Your task to perform on an android device: toggle pop-ups in chrome Image 0: 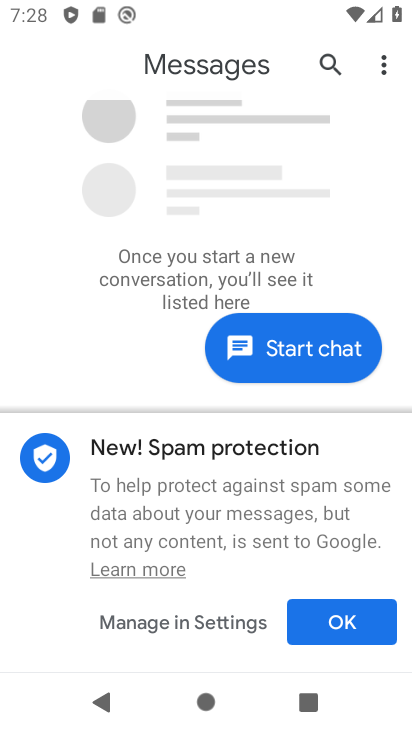
Step 0: press home button
Your task to perform on an android device: toggle pop-ups in chrome Image 1: 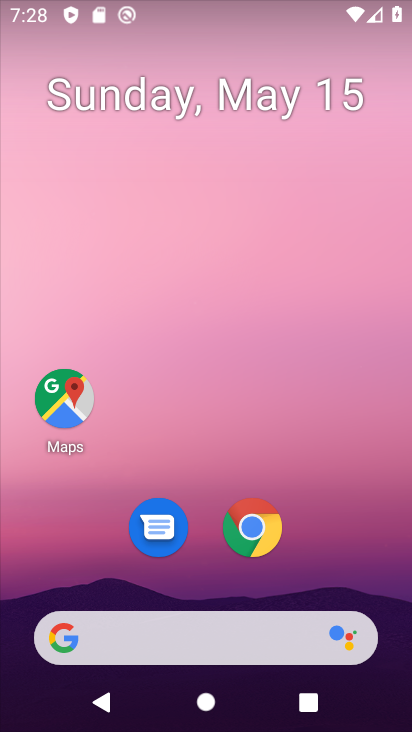
Step 1: drag from (223, 634) to (326, 120)
Your task to perform on an android device: toggle pop-ups in chrome Image 2: 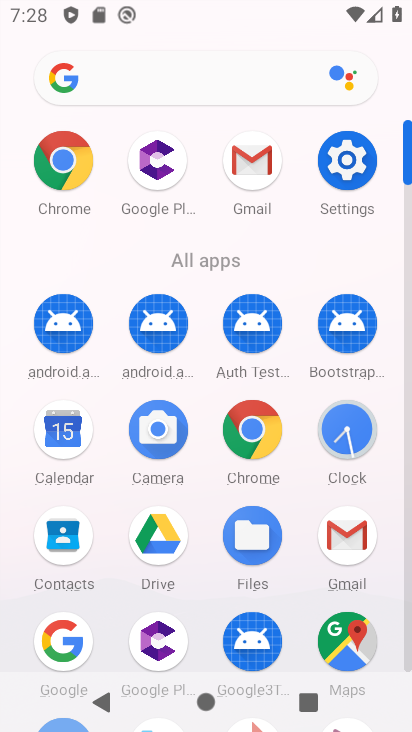
Step 2: click (59, 173)
Your task to perform on an android device: toggle pop-ups in chrome Image 3: 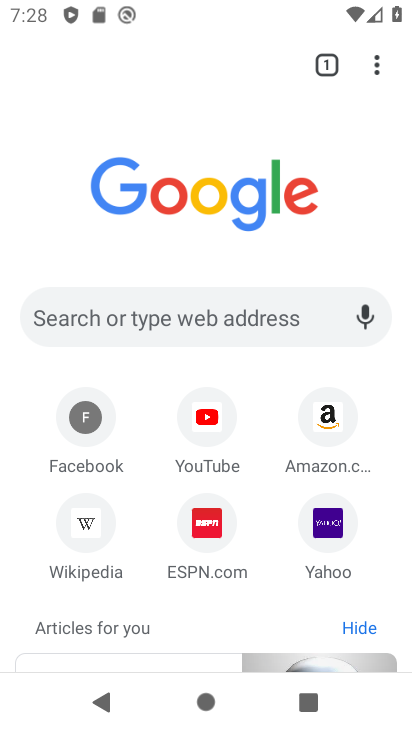
Step 3: drag from (375, 72) to (227, 527)
Your task to perform on an android device: toggle pop-ups in chrome Image 4: 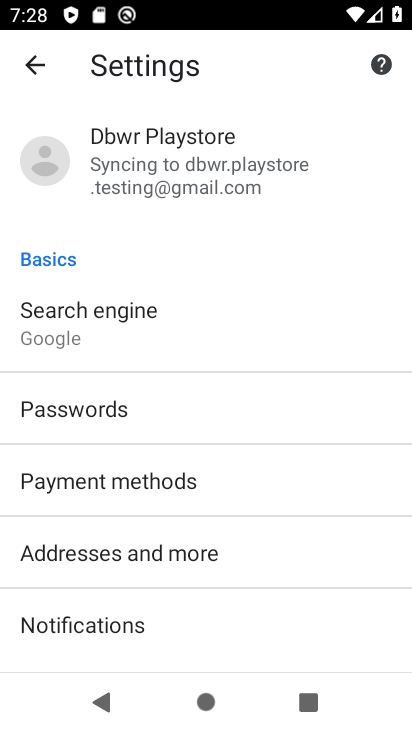
Step 4: drag from (182, 595) to (310, 221)
Your task to perform on an android device: toggle pop-ups in chrome Image 5: 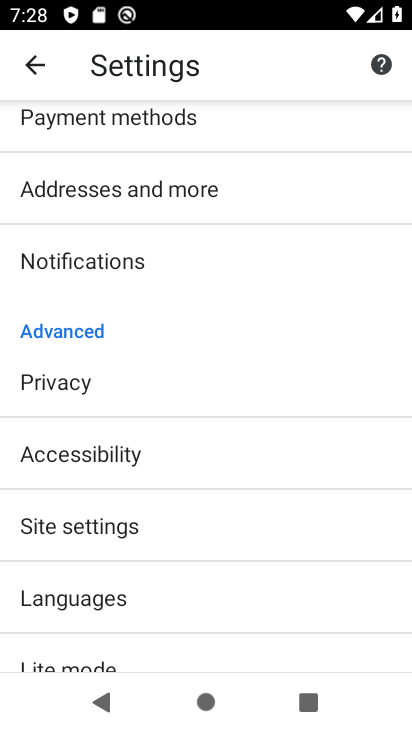
Step 5: click (123, 520)
Your task to perform on an android device: toggle pop-ups in chrome Image 6: 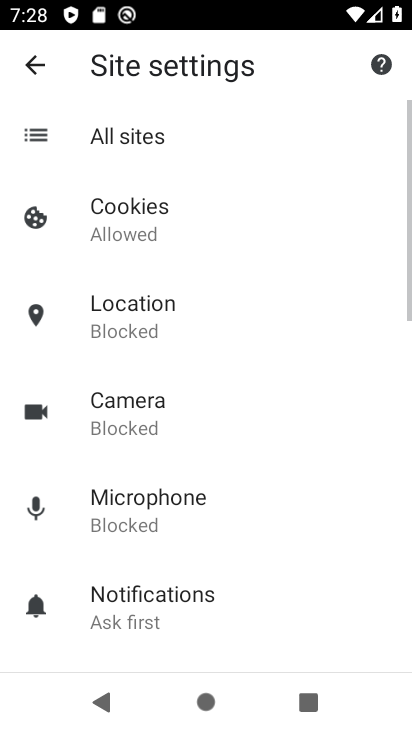
Step 6: drag from (217, 559) to (306, 263)
Your task to perform on an android device: toggle pop-ups in chrome Image 7: 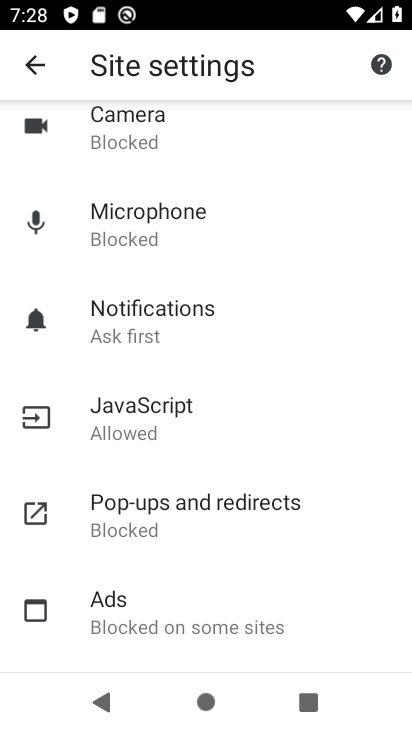
Step 7: click (197, 496)
Your task to perform on an android device: toggle pop-ups in chrome Image 8: 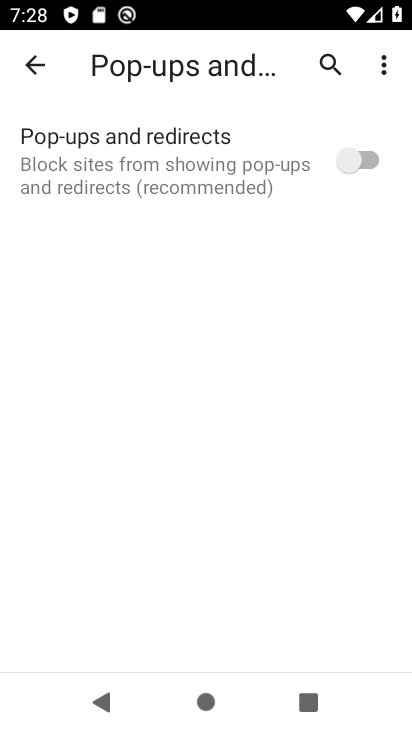
Step 8: click (373, 163)
Your task to perform on an android device: toggle pop-ups in chrome Image 9: 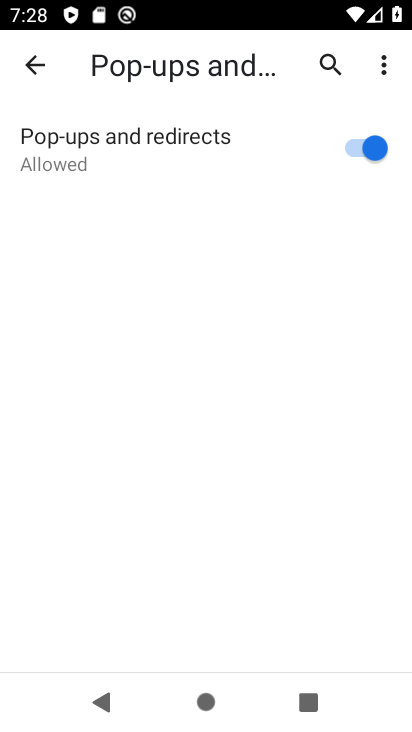
Step 9: task complete